Your task to perform on an android device: change your default location settings in chrome Image 0: 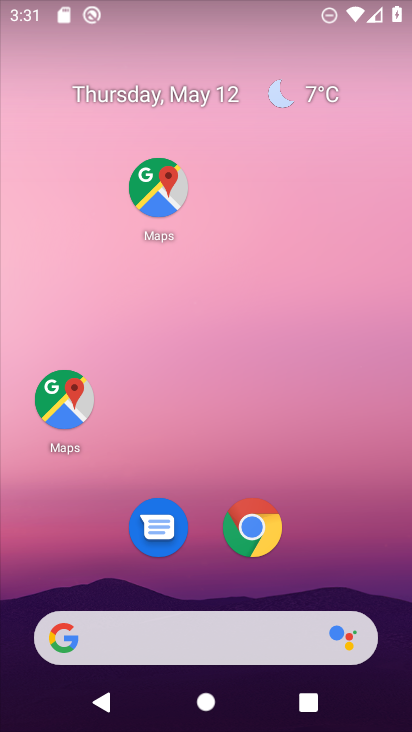
Step 0: click (272, 528)
Your task to perform on an android device: change your default location settings in chrome Image 1: 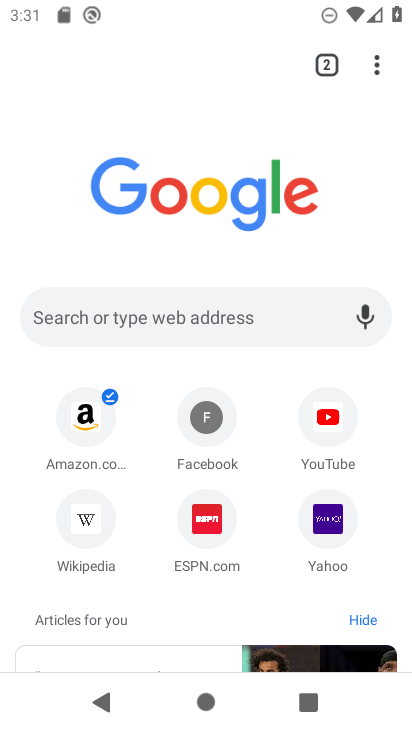
Step 1: click (371, 52)
Your task to perform on an android device: change your default location settings in chrome Image 2: 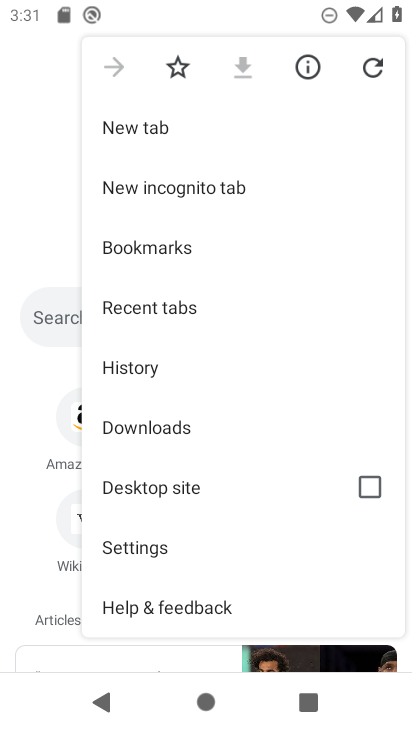
Step 2: drag from (304, 435) to (297, 141)
Your task to perform on an android device: change your default location settings in chrome Image 3: 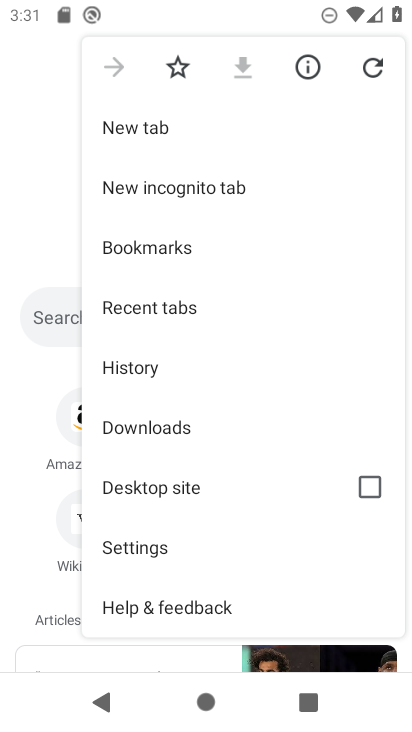
Step 3: click (144, 541)
Your task to perform on an android device: change your default location settings in chrome Image 4: 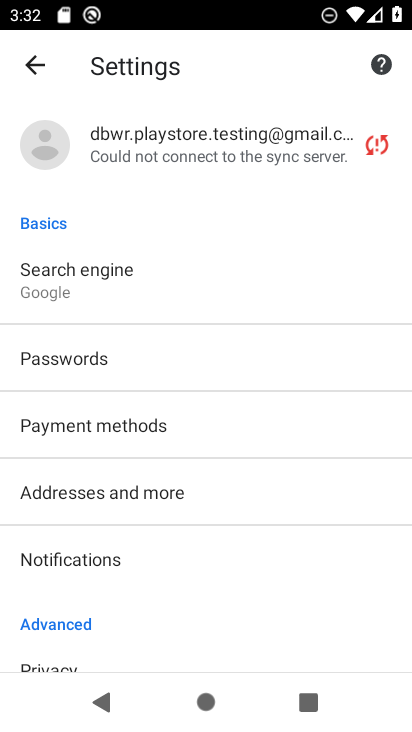
Step 4: drag from (156, 539) to (119, 327)
Your task to perform on an android device: change your default location settings in chrome Image 5: 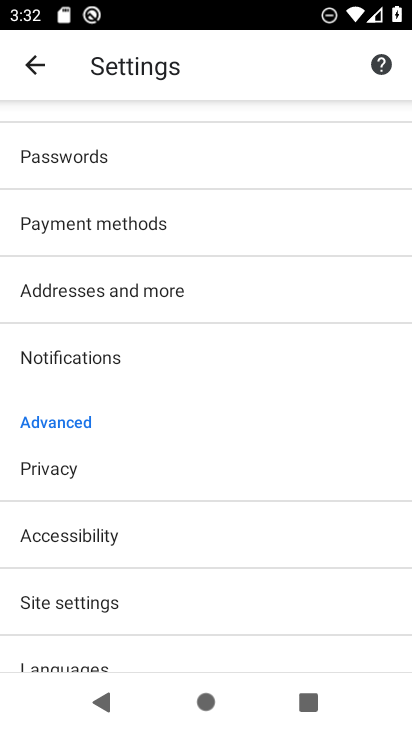
Step 5: drag from (158, 553) to (105, 253)
Your task to perform on an android device: change your default location settings in chrome Image 6: 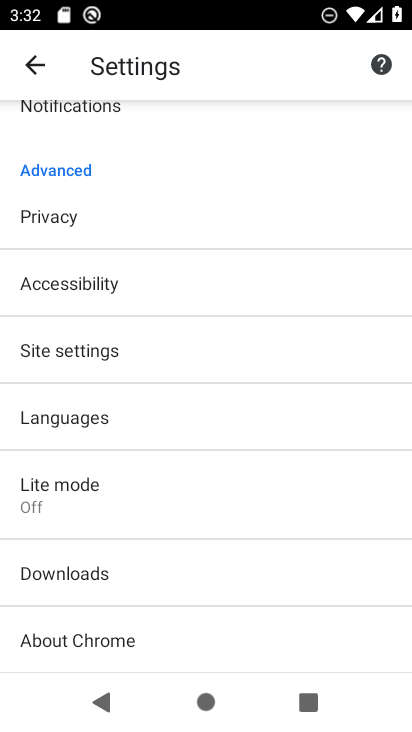
Step 6: click (53, 366)
Your task to perform on an android device: change your default location settings in chrome Image 7: 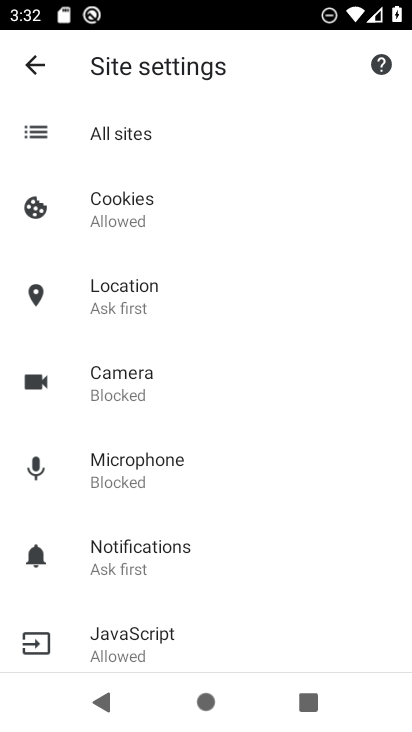
Step 7: click (139, 299)
Your task to perform on an android device: change your default location settings in chrome Image 8: 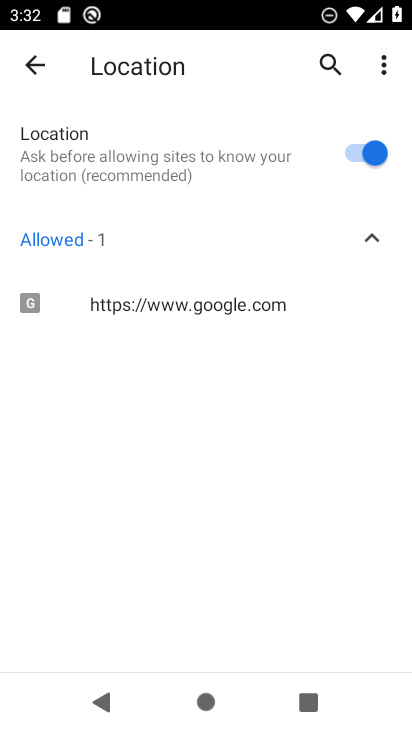
Step 8: click (359, 150)
Your task to perform on an android device: change your default location settings in chrome Image 9: 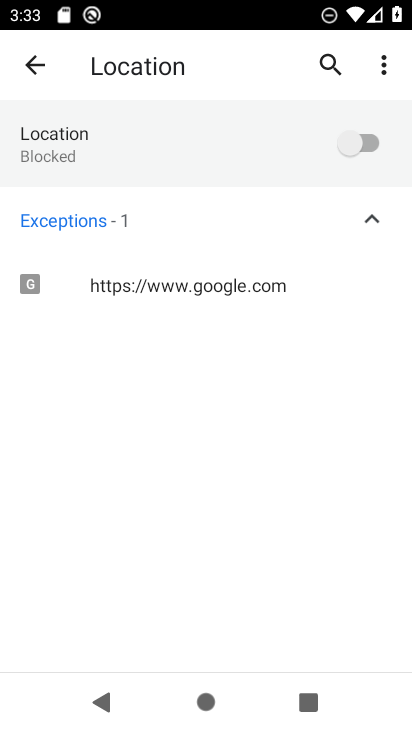
Step 9: task complete